Your task to perform on an android device: Open notification settings Image 0: 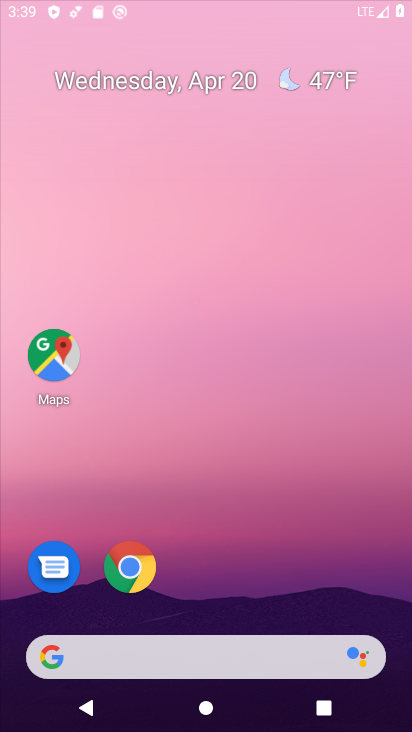
Step 0: drag from (279, 350) to (223, 32)
Your task to perform on an android device: Open notification settings Image 1: 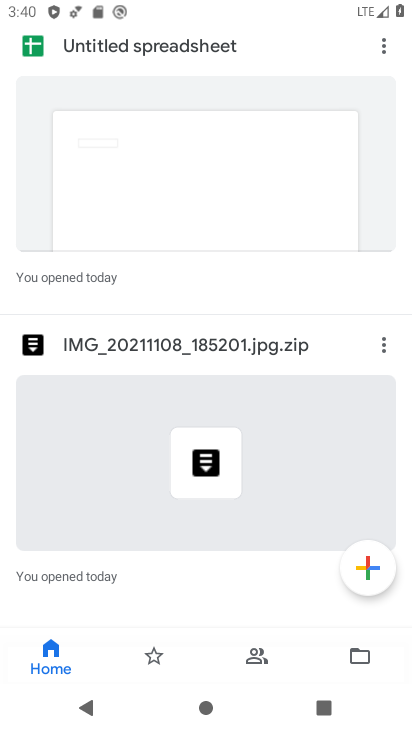
Step 1: press back button
Your task to perform on an android device: Open notification settings Image 2: 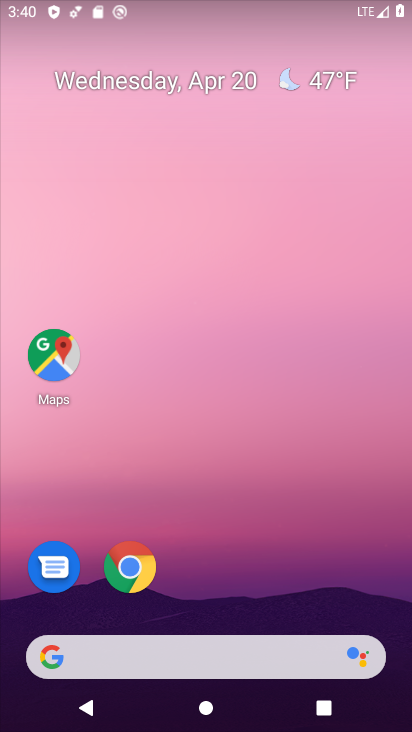
Step 2: drag from (306, 593) to (231, 36)
Your task to perform on an android device: Open notification settings Image 3: 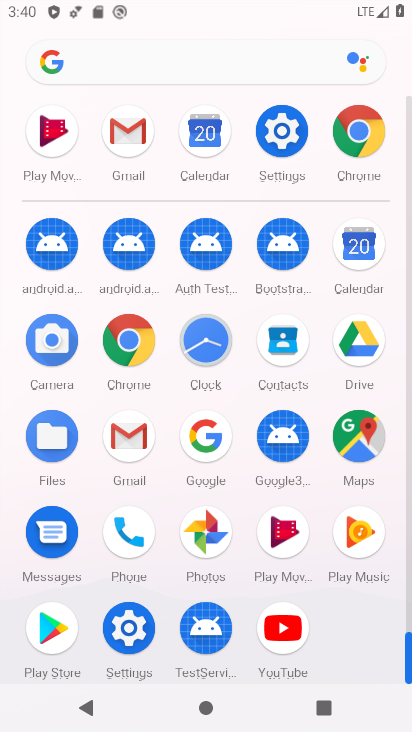
Step 3: click (128, 628)
Your task to perform on an android device: Open notification settings Image 4: 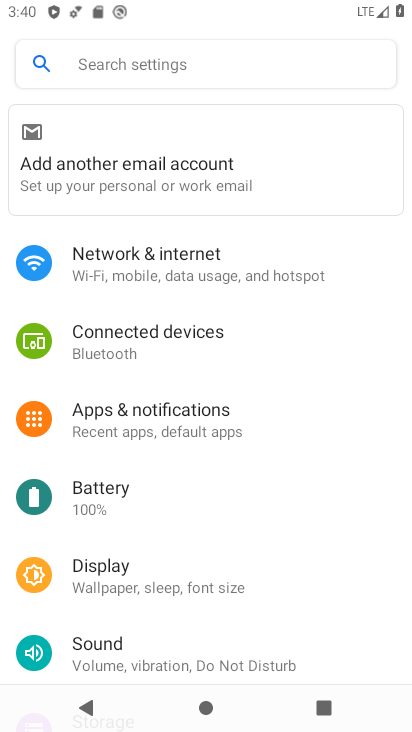
Step 4: click (155, 418)
Your task to perform on an android device: Open notification settings Image 5: 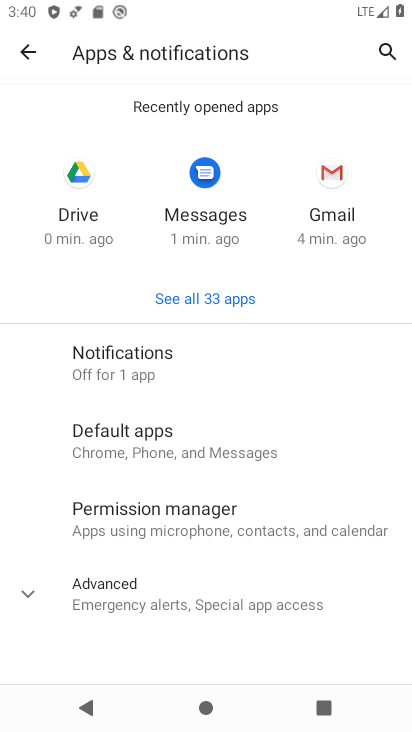
Step 5: click (176, 360)
Your task to perform on an android device: Open notification settings Image 6: 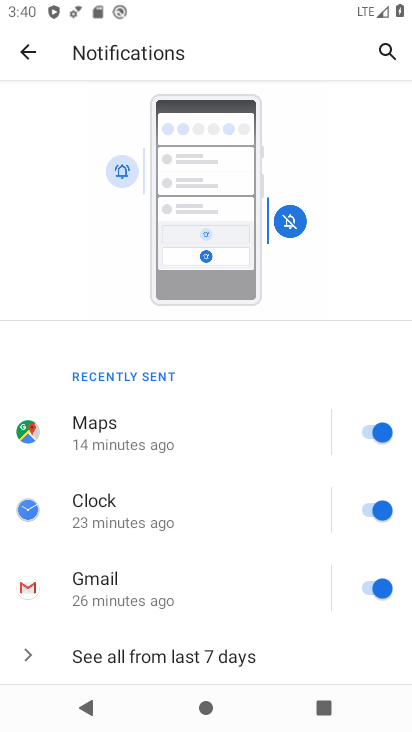
Step 6: task complete